Your task to perform on an android device: Open internet settings Image 0: 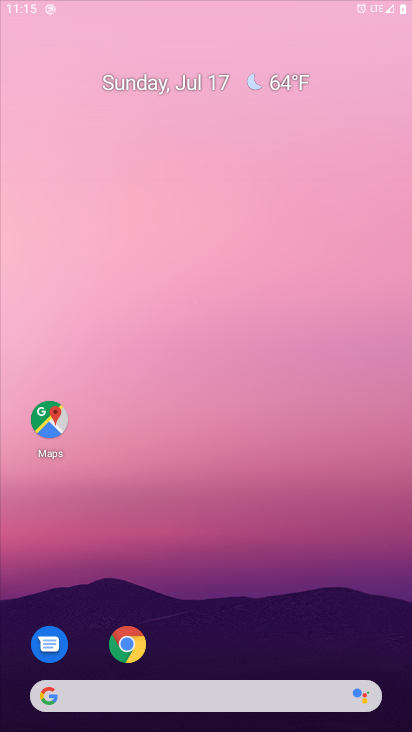
Step 0: press home button
Your task to perform on an android device: Open internet settings Image 1: 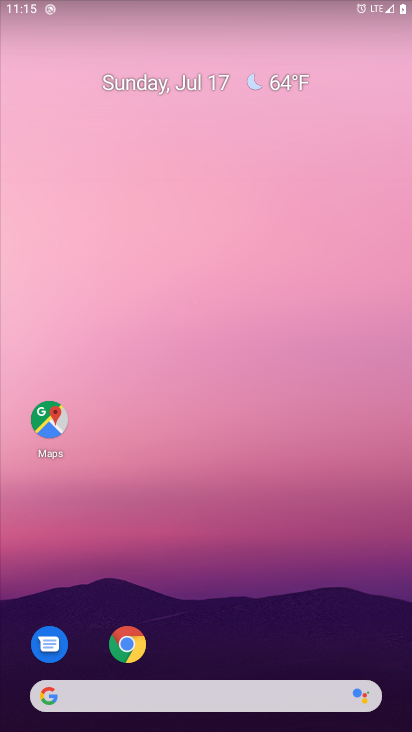
Step 1: press home button
Your task to perform on an android device: Open internet settings Image 2: 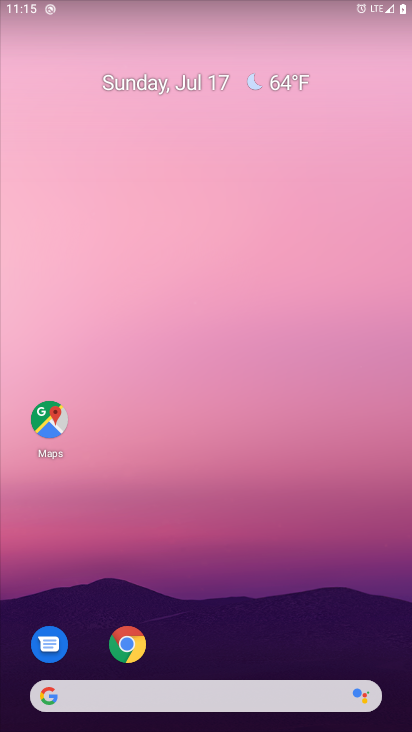
Step 2: drag from (259, 572) to (277, 253)
Your task to perform on an android device: Open internet settings Image 3: 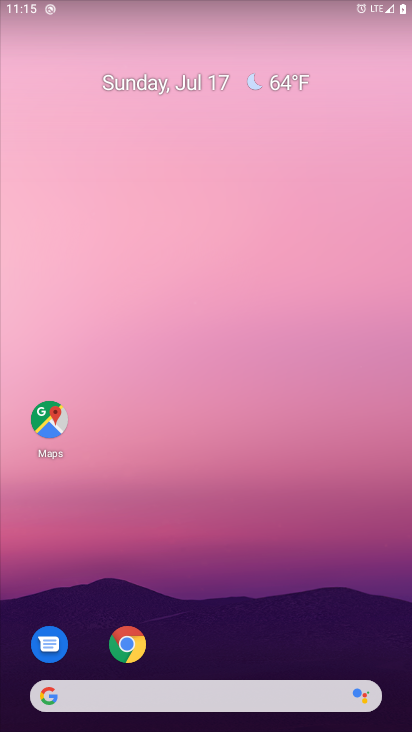
Step 3: drag from (239, 538) to (306, 23)
Your task to perform on an android device: Open internet settings Image 4: 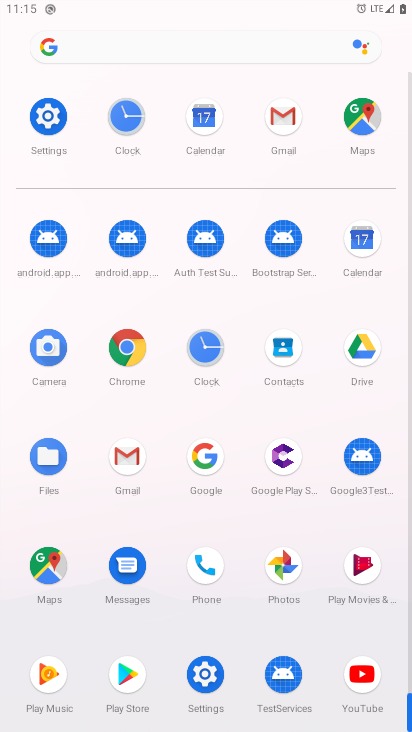
Step 4: click (44, 122)
Your task to perform on an android device: Open internet settings Image 5: 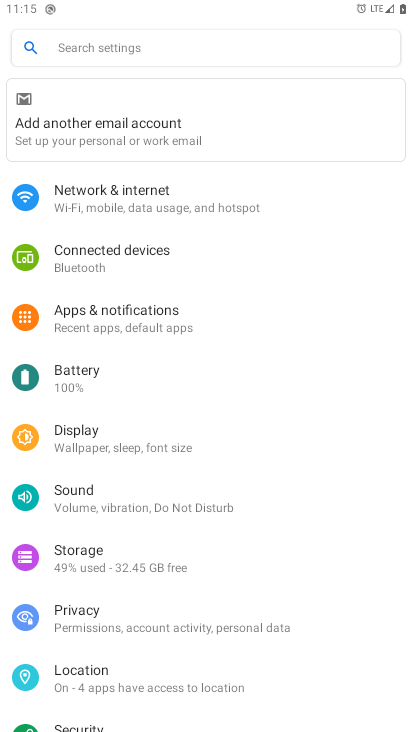
Step 5: click (101, 210)
Your task to perform on an android device: Open internet settings Image 6: 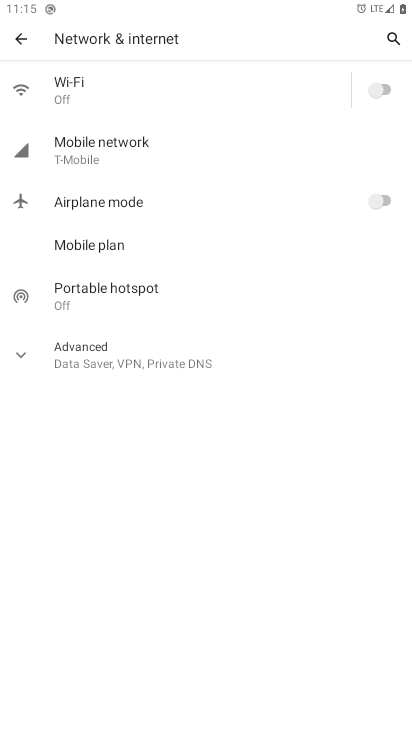
Step 6: click (103, 144)
Your task to perform on an android device: Open internet settings Image 7: 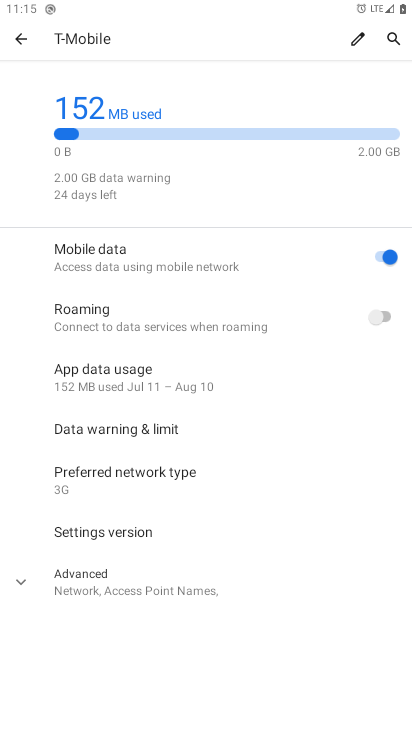
Step 7: task complete